Your task to perform on an android device: turn off translation in the chrome app Image 0: 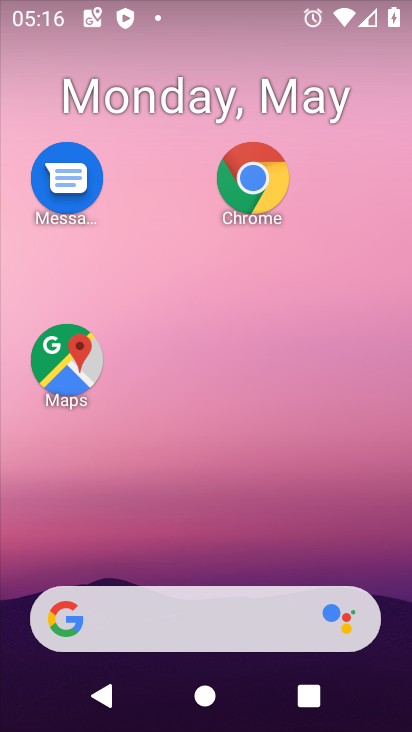
Step 0: click (252, 174)
Your task to perform on an android device: turn off translation in the chrome app Image 1: 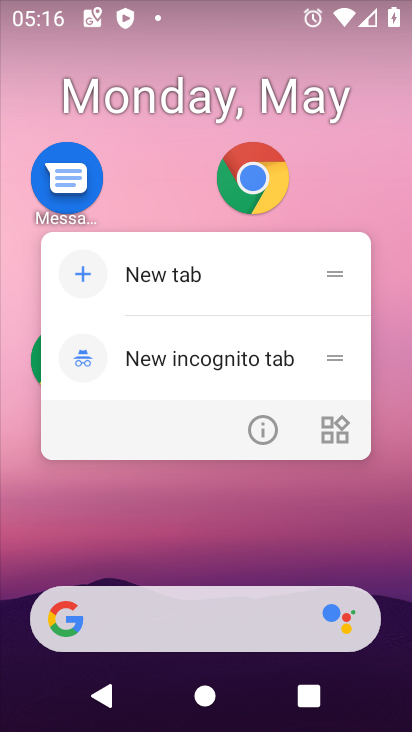
Step 1: click (252, 189)
Your task to perform on an android device: turn off translation in the chrome app Image 2: 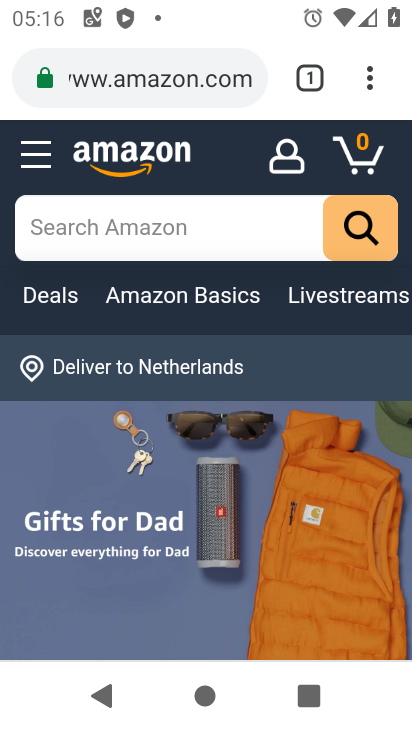
Step 2: click (371, 89)
Your task to perform on an android device: turn off translation in the chrome app Image 3: 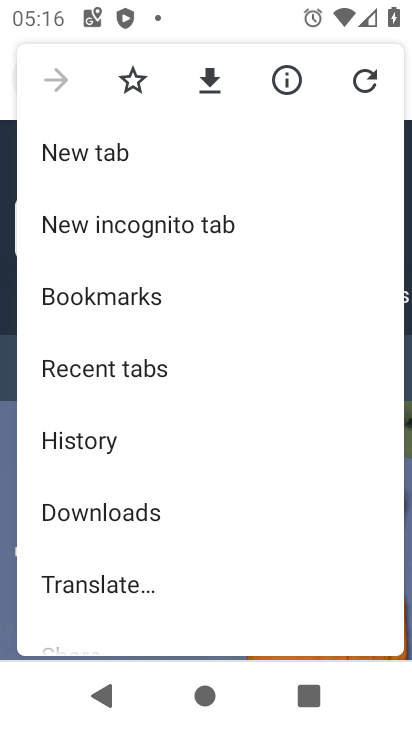
Step 3: drag from (95, 572) to (91, 215)
Your task to perform on an android device: turn off translation in the chrome app Image 4: 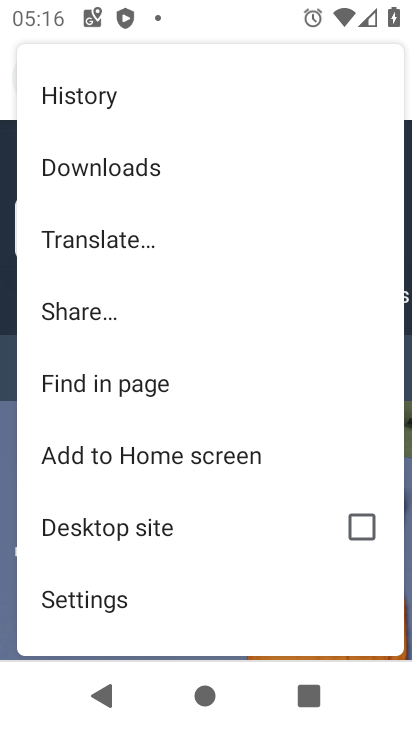
Step 4: click (109, 594)
Your task to perform on an android device: turn off translation in the chrome app Image 5: 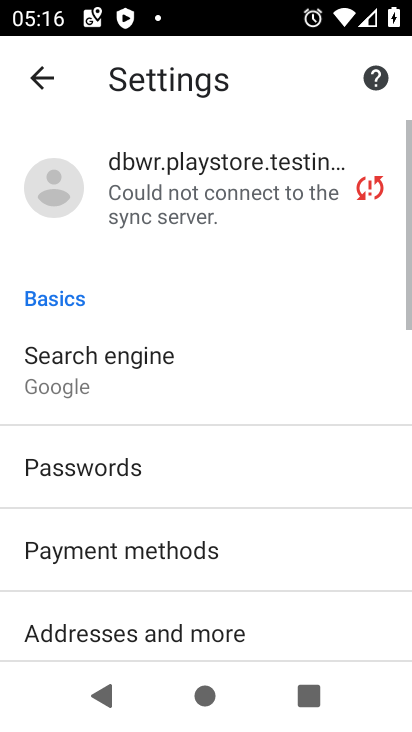
Step 5: drag from (107, 614) to (141, 293)
Your task to perform on an android device: turn off translation in the chrome app Image 6: 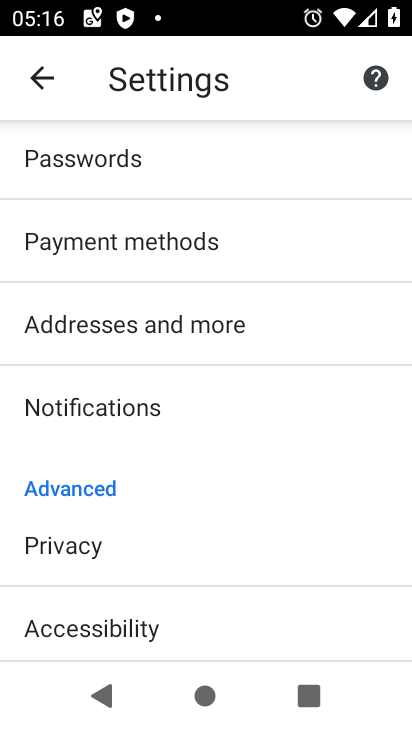
Step 6: drag from (126, 591) to (186, 277)
Your task to perform on an android device: turn off translation in the chrome app Image 7: 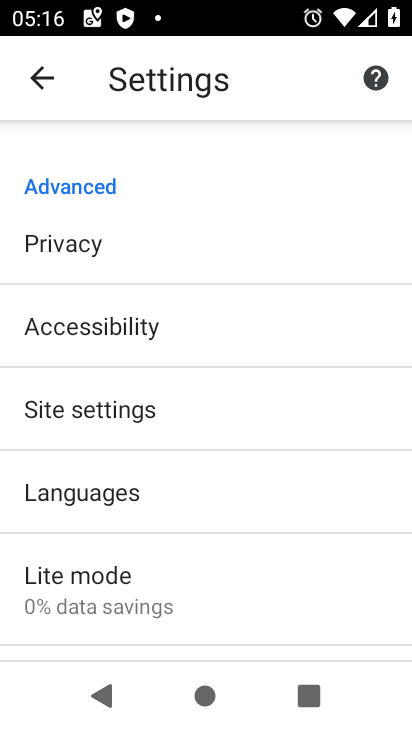
Step 7: click (72, 503)
Your task to perform on an android device: turn off translation in the chrome app Image 8: 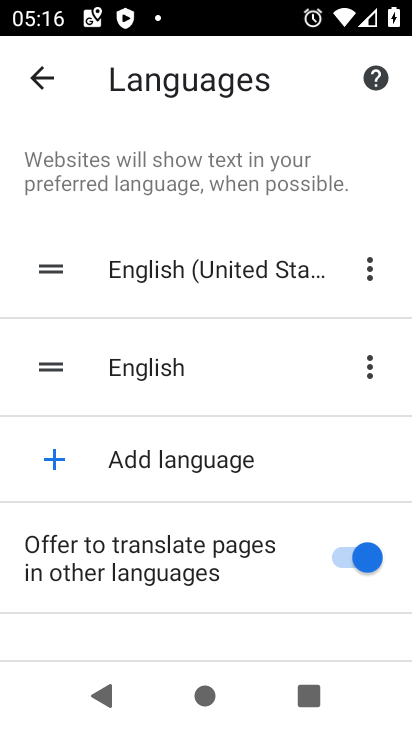
Step 8: click (335, 558)
Your task to perform on an android device: turn off translation in the chrome app Image 9: 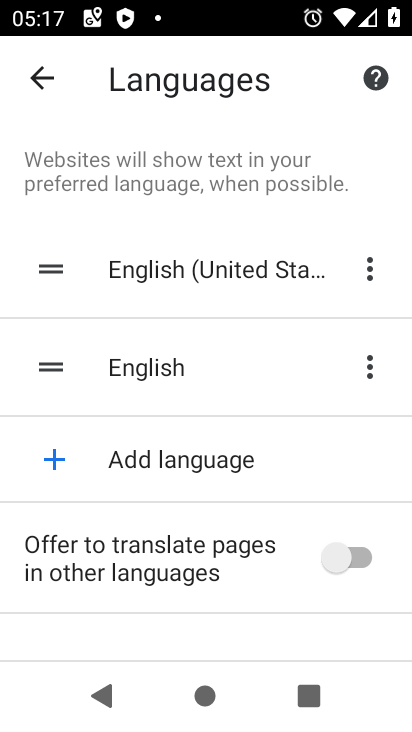
Step 9: task complete